Your task to perform on an android device: Show me popular games on the Play Store Image 0: 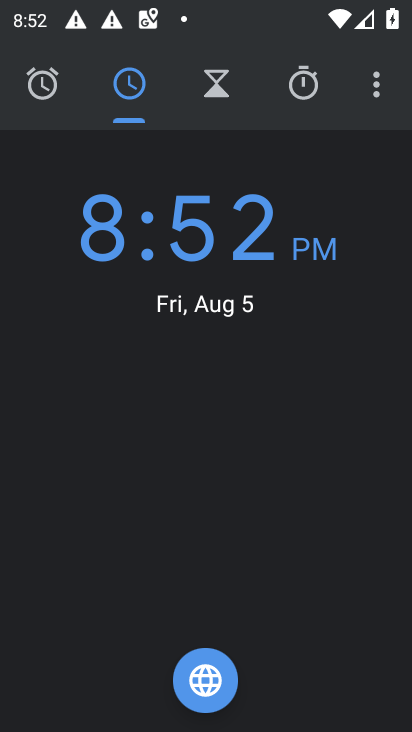
Step 0: press home button
Your task to perform on an android device: Show me popular games on the Play Store Image 1: 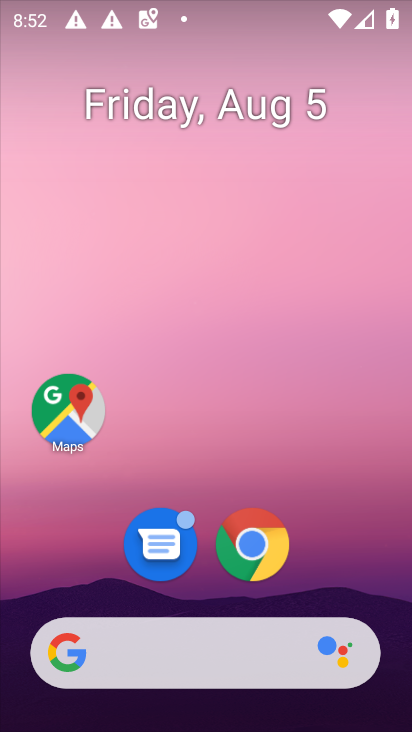
Step 1: drag from (319, 636) to (231, 0)
Your task to perform on an android device: Show me popular games on the Play Store Image 2: 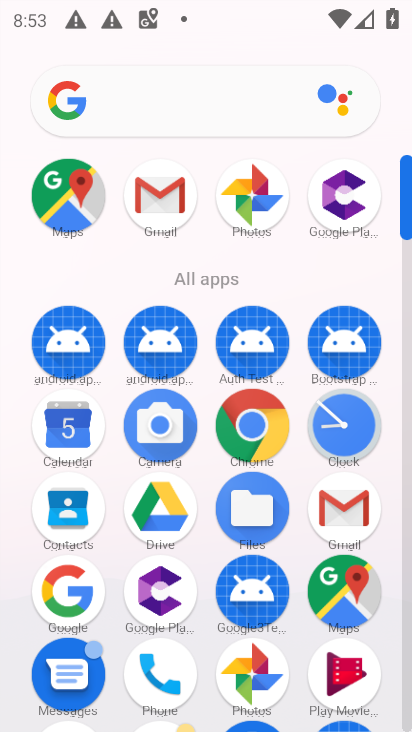
Step 2: drag from (391, 641) to (290, 143)
Your task to perform on an android device: Show me popular games on the Play Store Image 3: 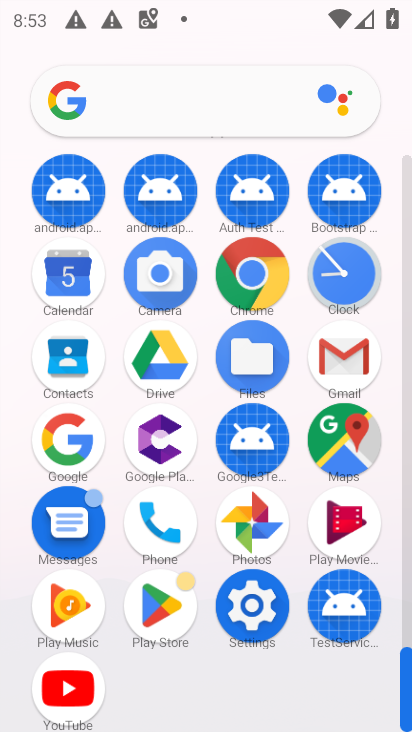
Step 3: click (154, 597)
Your task to perform on an android device: Show me popular games on the Play Store Image 4: 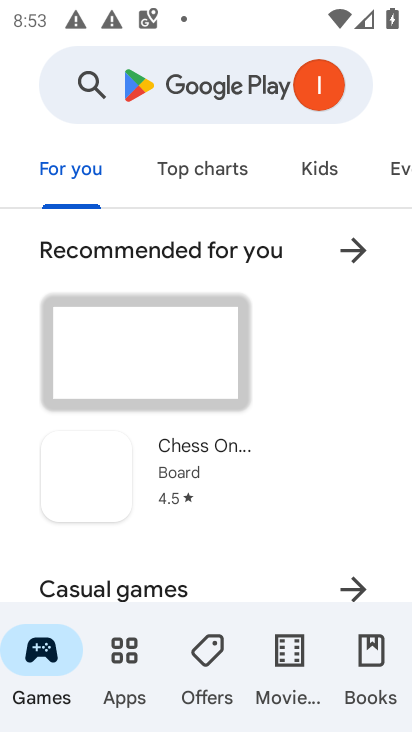
Step 4: click (191, 81)
Your task to perform on an android device: Show me popular games on the Play Store Image 5: 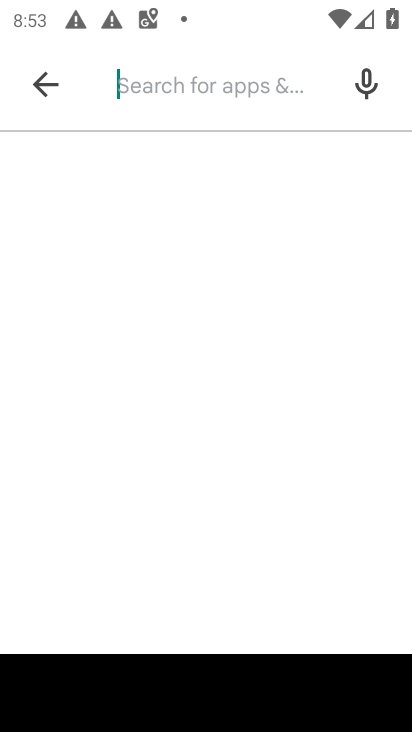
Step 5: press enter
Your task to perform on an android device: Show me popular games on the Play Store Image 6: 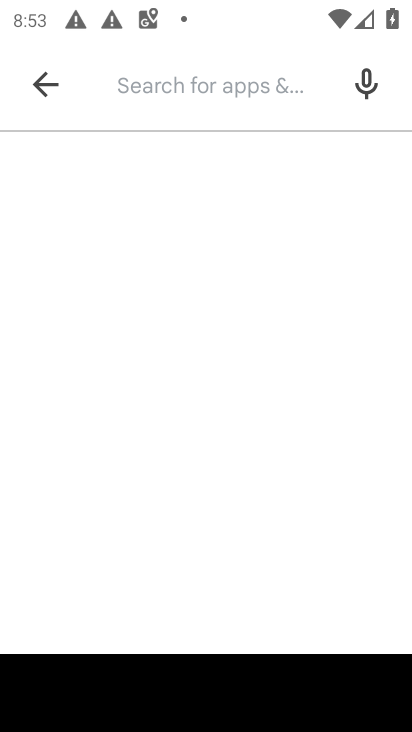
Step 6: type "popular games "
Your task to perform on an android device: Show me popular games on the Play Store Image 7: 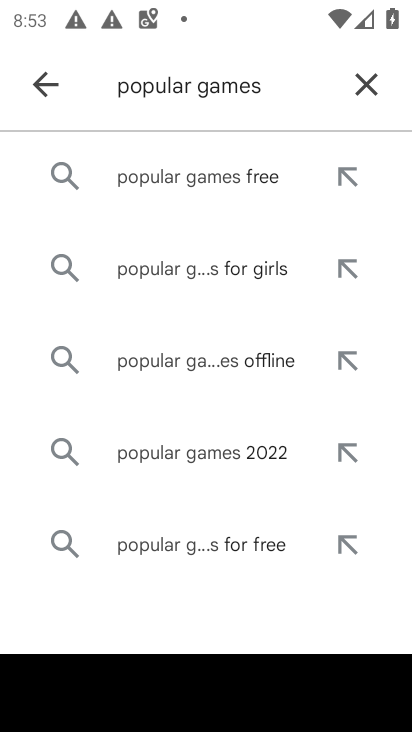
Step 7: press enter
Your task to perform on an android device: Show me popular games on the Play Store Image 8: 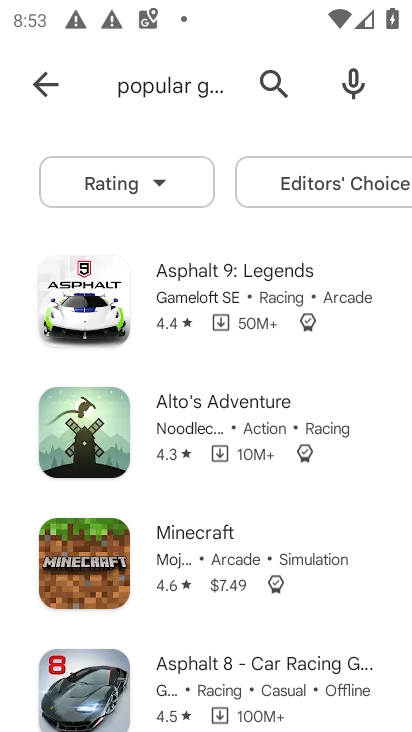
Step 8: task complete